Your task to perform on an android device: Open my contact list Image 0: 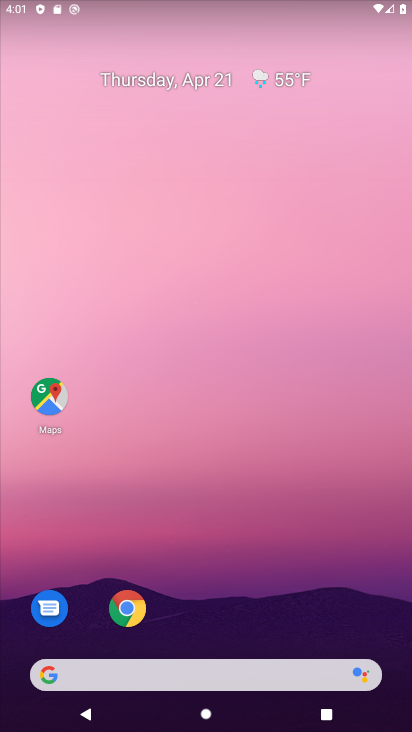
Step 0: drag from (190, 594) to (359, 2)
Your task to perform on an android device: Open my contact list Image 1: 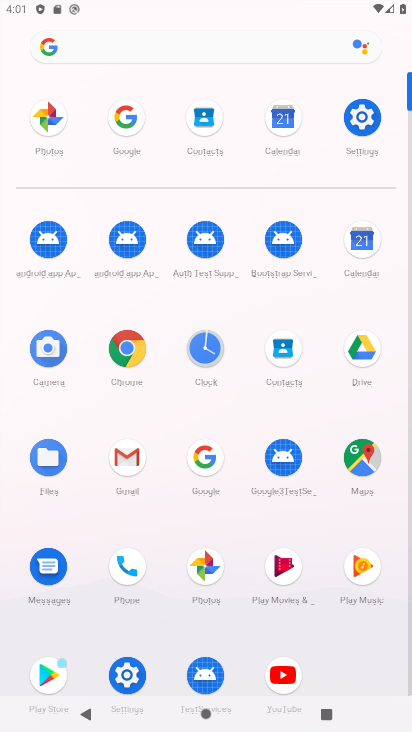
Step 1: drag from (311, 563) to (385, 260)
Your task to perform on an android device: Open my contact list Image 2: 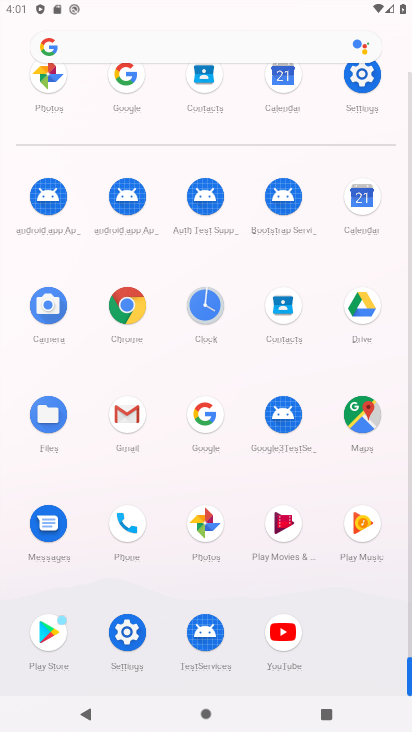
Step 2: drag from (283, 177) to (234, 474)
Your task to perform on an android device: Open my contact list Image 3: 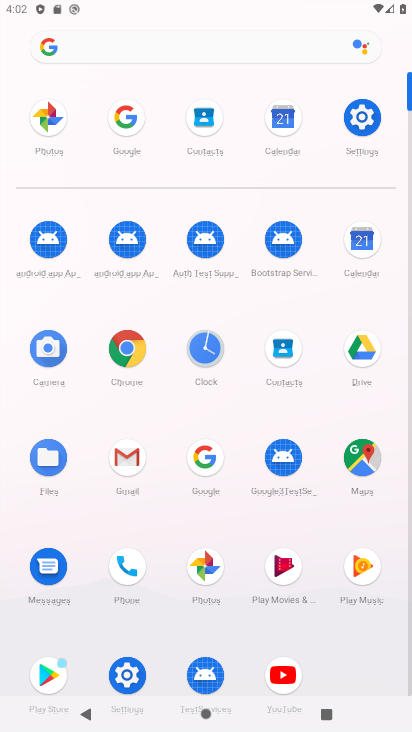
Step 3: click (204, 107)
Your task to perform on an android device: Open my contact list Image 4: 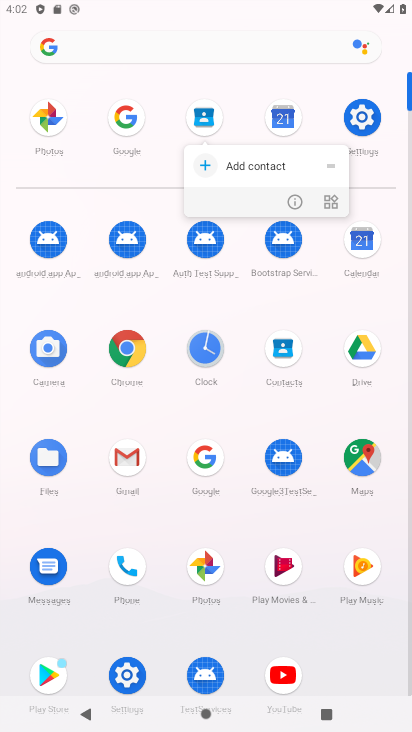
Step 4: click (211, 109)
Your task to perform on an android device: Open my contact list Image 5: 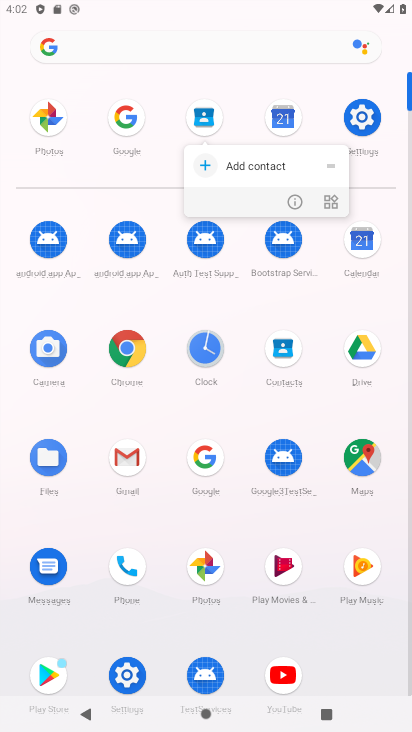
Step 5: click (207, 120)
Your task to perform on an android device: Open my contact list Image 6: 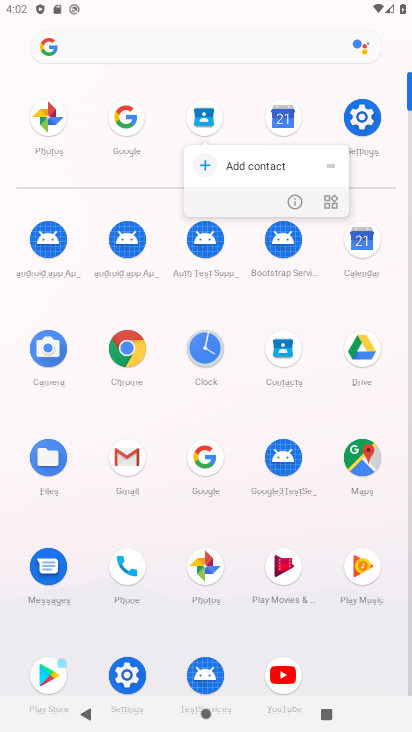
Step 6: click (209, 123)
Your task to perform on an android device: Open my contact list Image 7: 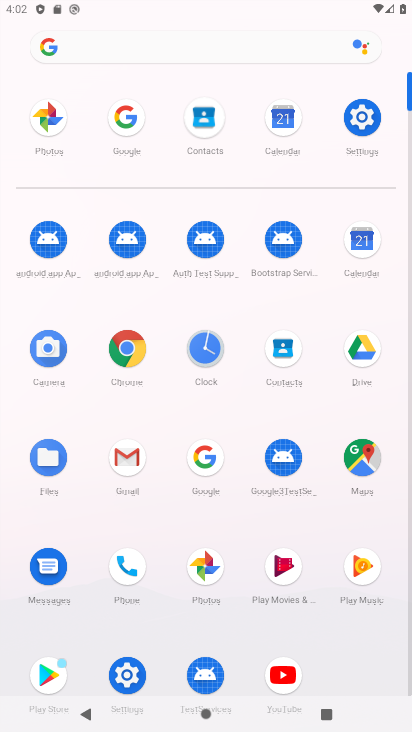
Step 7: click (198, 104)
Your task to perform on an android device: Open my contact list Image 8: 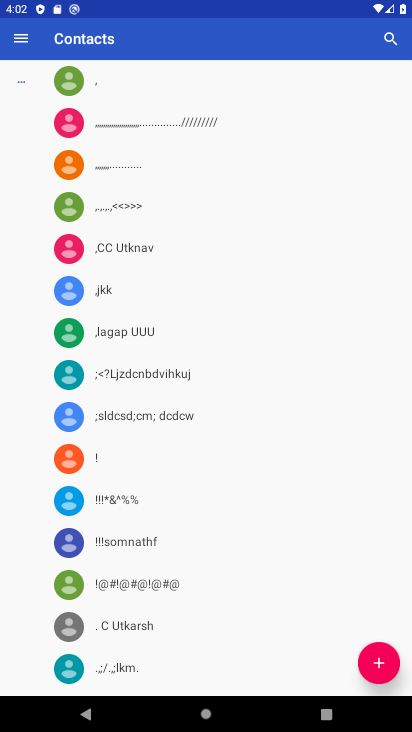
Step 8: task complete